Your task to perform on an android device: Go to wifi settings Image 0: 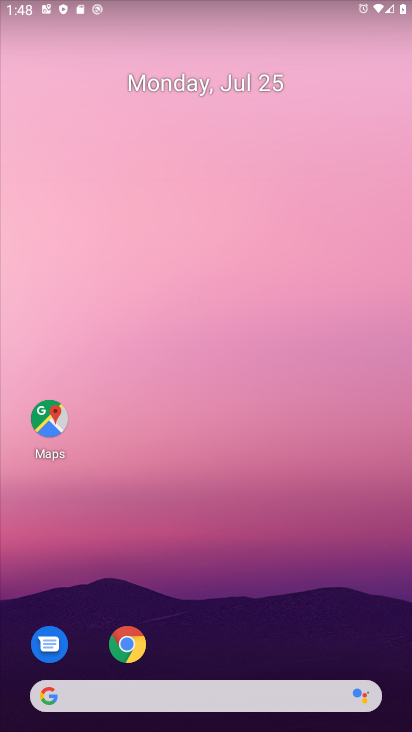
Step 0: drag from (323, 640) to (177, 21)
Your task to perform on an android device: Go to wifi settings Image 1: 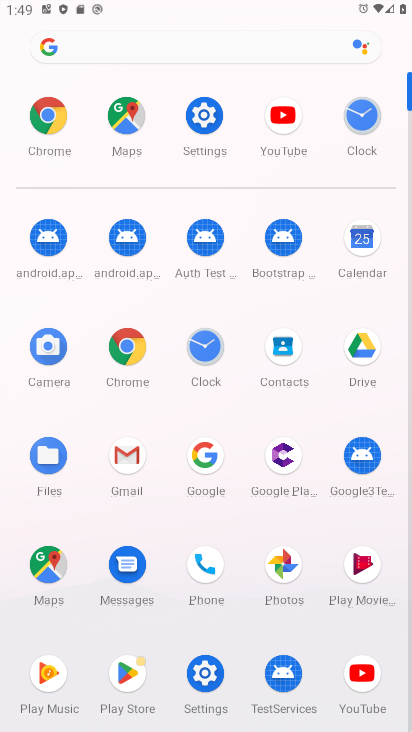
Step 1: click (199, 682)
Your task to perform on an android device: Go to wifi settings Image 2: 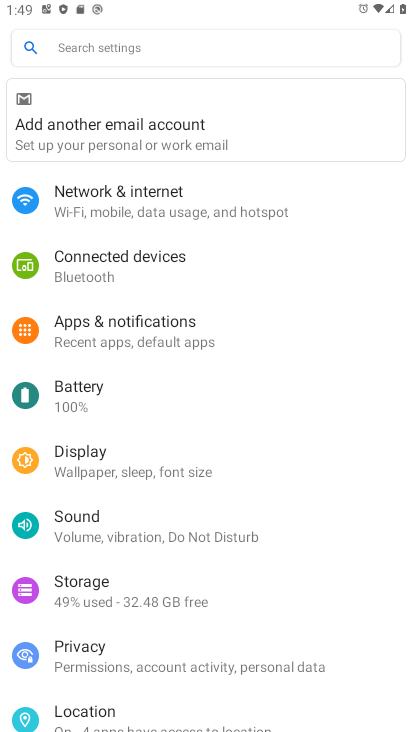
Step 2: click (139, 227)
Your task to perform on an android device: Go to wifi settings Image 3: 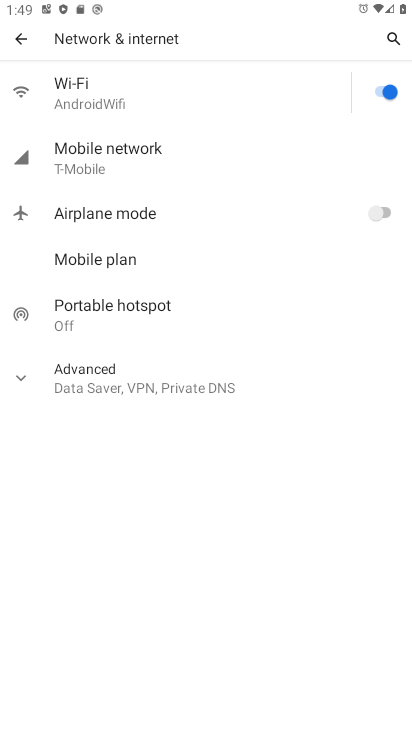
Step 3: click (155, 99)
Your task to perform on an android device: Go to wifi settings Image 4: 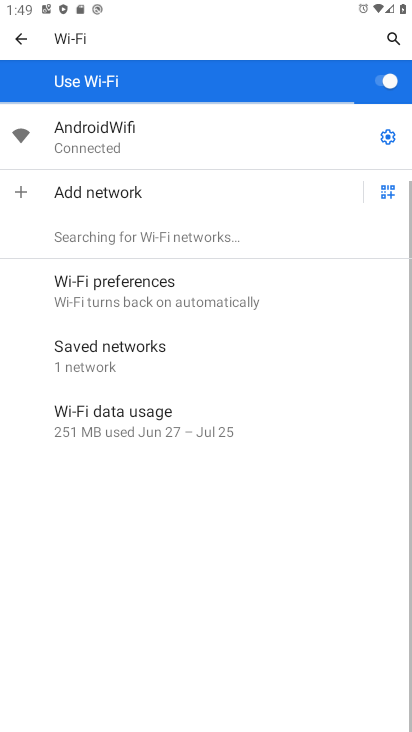
Step 4: task complete